Your task to perform on an android device: Go to sound settings Image 0: 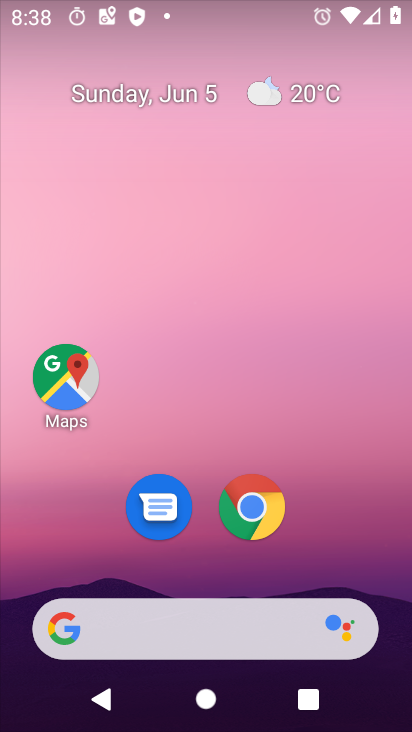
Step 0: drag from (327, 424) to (273, 2)
Your task to perform on an android device: Go to sound settings Image 1: 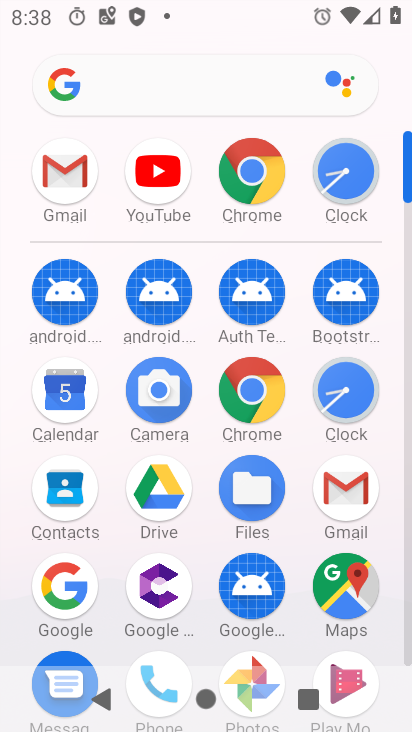
Step 1: drag from (10, 617) to (23, 296)
Your task to perform on an android device: Go to sound settings Image 2: 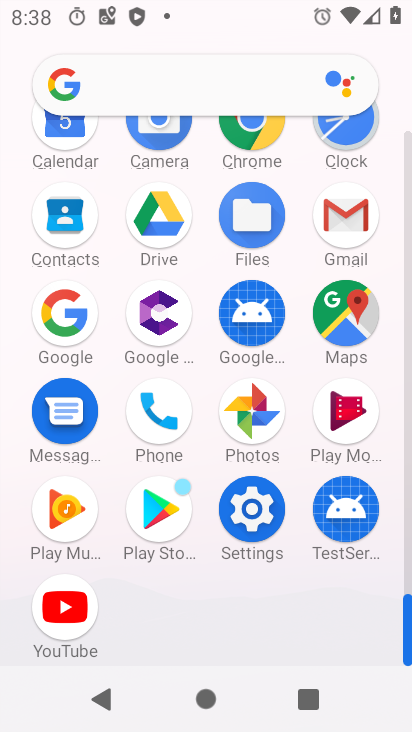
Step 2: click (252, 502)
Your task to perform on an android device: Go to sound settings Image 3: 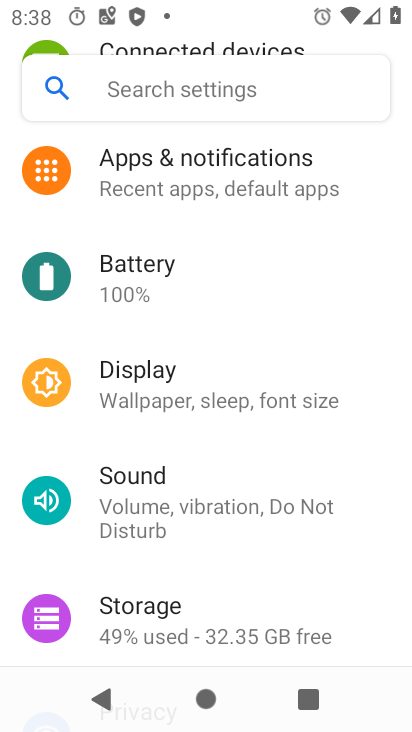
Step 3: drag from (270, 181) to (284, 607)
Your task to perform on an android device: Go to sound settings Image 4: 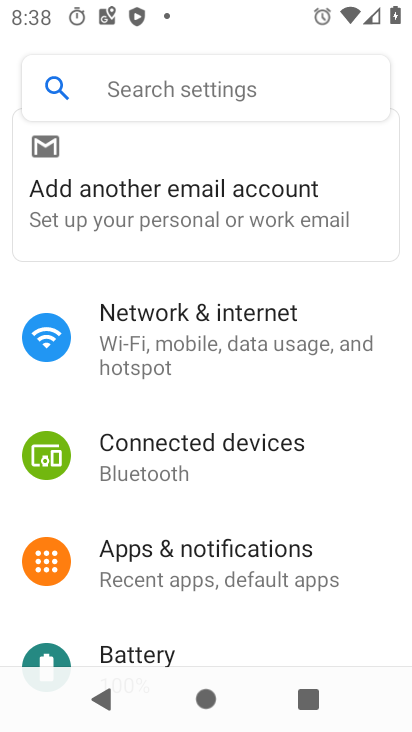
Step 4: drag from (267, 572) to (259, 244)
Your task to perform on an android device: Go to sound settings Image 5: 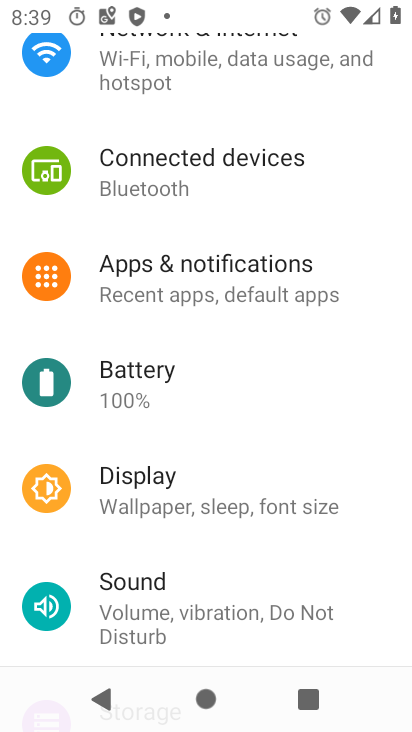
Step 5: drag from (286, 538) to (306, 236)
Your task to perform on an android device: Go to sound settings Image 6: 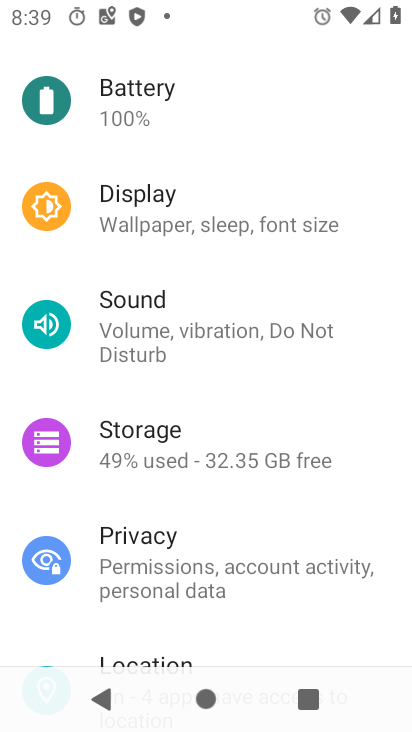
Step 6: click (194, 328)
Your task to perform on an android device: Go to sound settings Image 7: 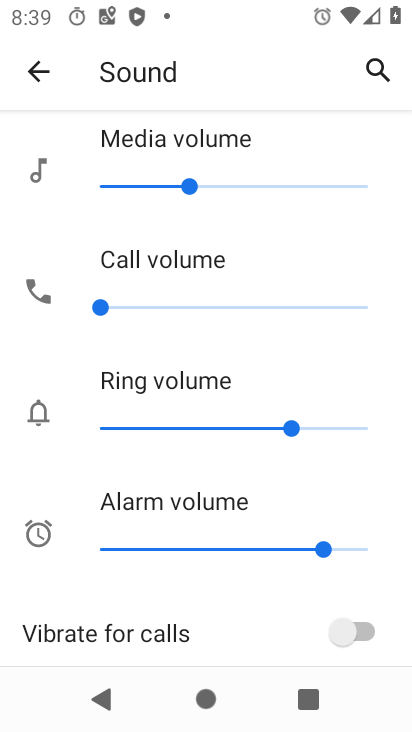
Step 7: task complete